Your task to perform on an android device: clear all cookies in the chrome app Image 0: 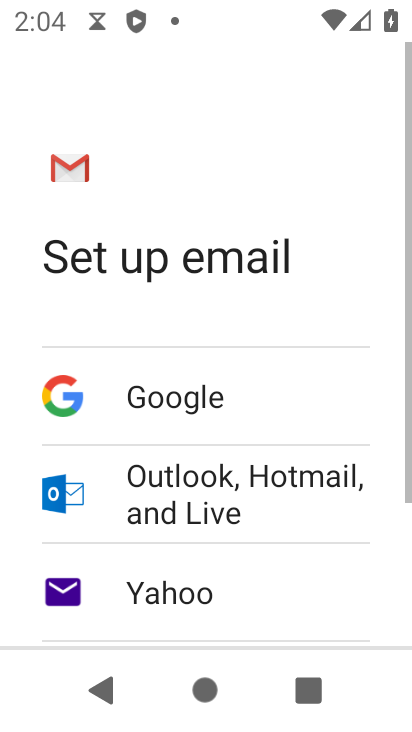
Step 0: press home button
Your task to perform on an android device: clear all cookies in the chrome app Image 1: 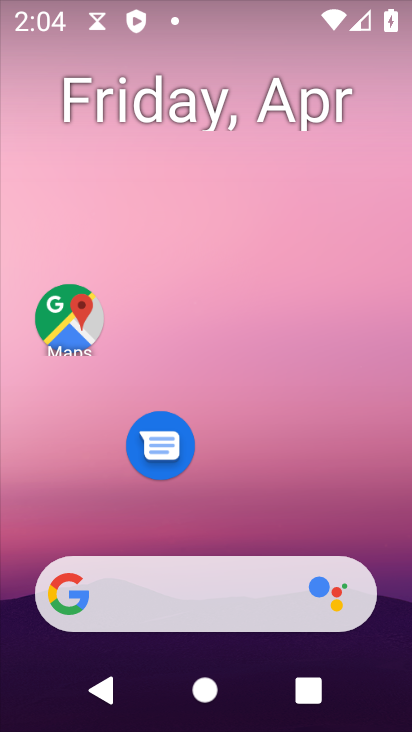
Step 1: drag from (277, 453) to (239, 66)
Your task to perform on an android device: clear all cookies in the chrome app Image 2: 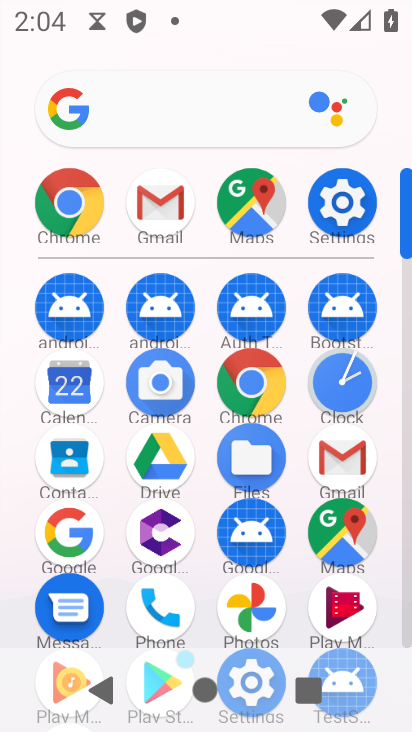
Step 2: click (247, 394)
Your task to perform on an android device: clear all cookies in the chrome app Image 3: 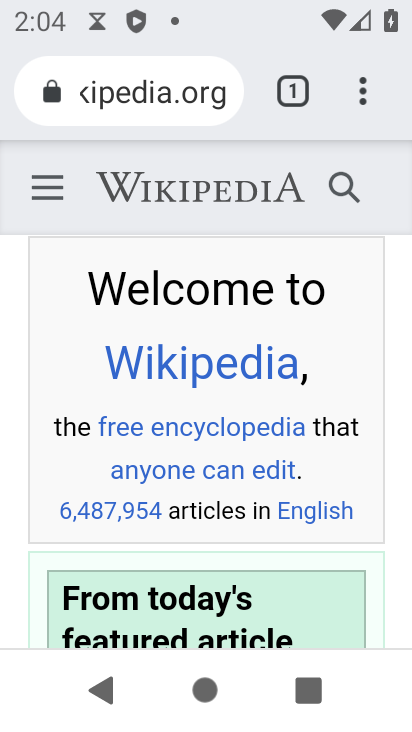
Step 3: click (356, 79)
Your task to perform on an android device: clear all cookies in the chrome app Image 4: 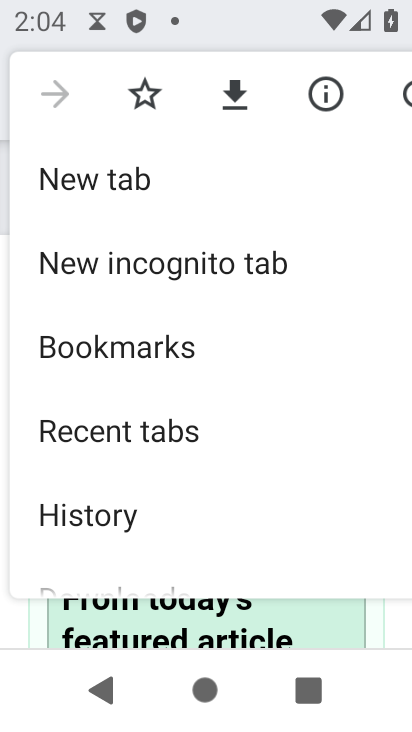
Step 4: drag from (171, 486) to (166, 297)
Your task to perform on an android device: clear all cookies in the chrome app Image 5: 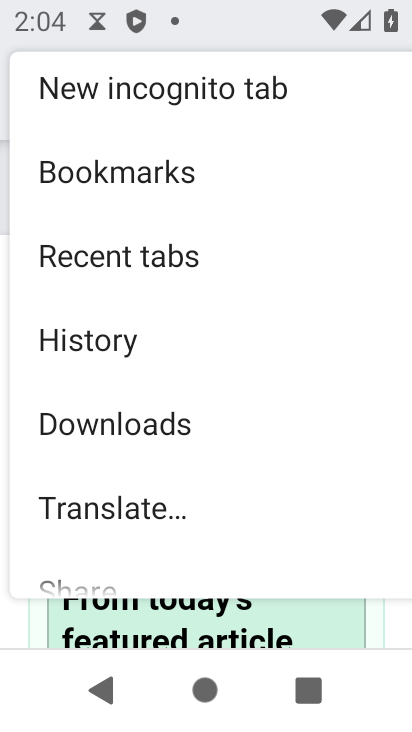
Step 5: click (166, 340)
Your task to perform on an android device: clear all cookies in the chrome app Image 6: 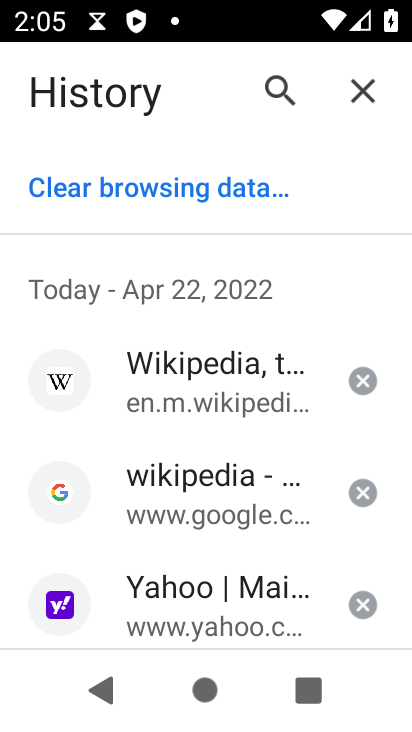
Step 6: click (116, 198)
Your task to perform on an android device: clear all cookies in the chrome app Image 7: 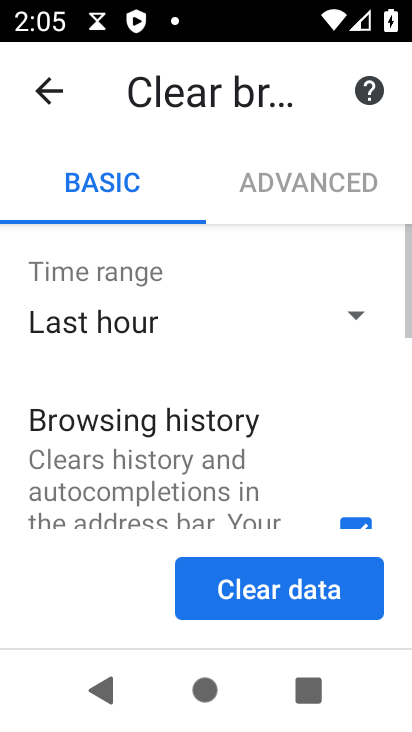
Step 7: drag from (237, 504) to (243, 205)
Your task to perform on an android device: clear all cookies in the chrome app Image 8: 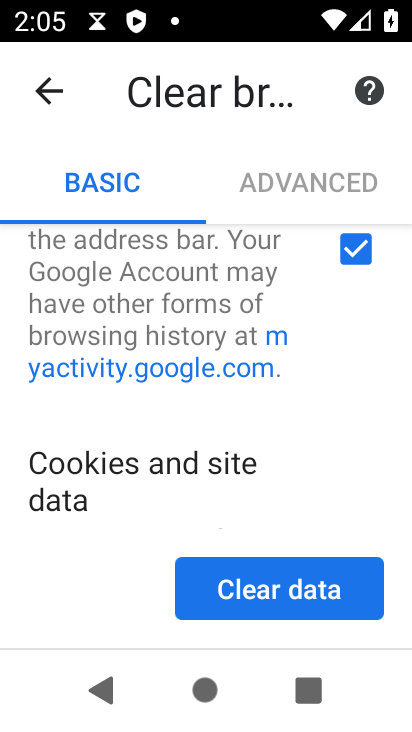
Step 8: drag from (281, 480) to (315, 504)
Your task to perform on an android device: clear all cookies in the chrome app Image 9: 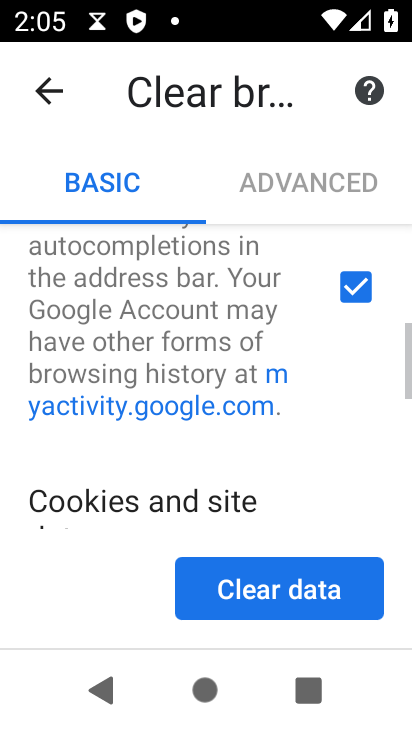
Step 9: click (328, 340)
Your task to perform on an android device: clear all cookies in the chrome app Image 10: 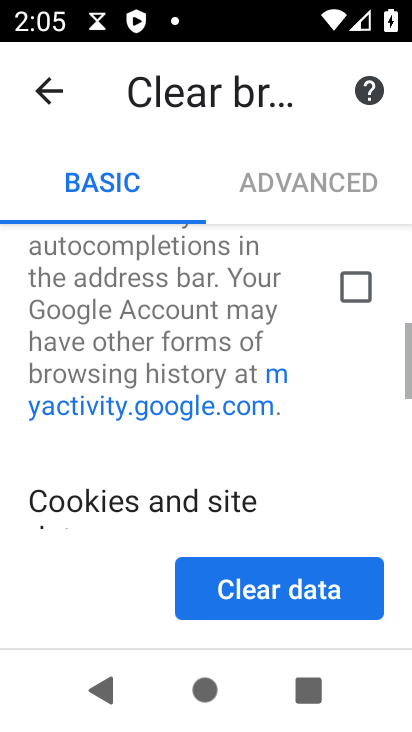
Step 10: drag from (238, 462) to (266, 268)
Your task to perform on an android device: clear all cookies in the chrome app Image 11: 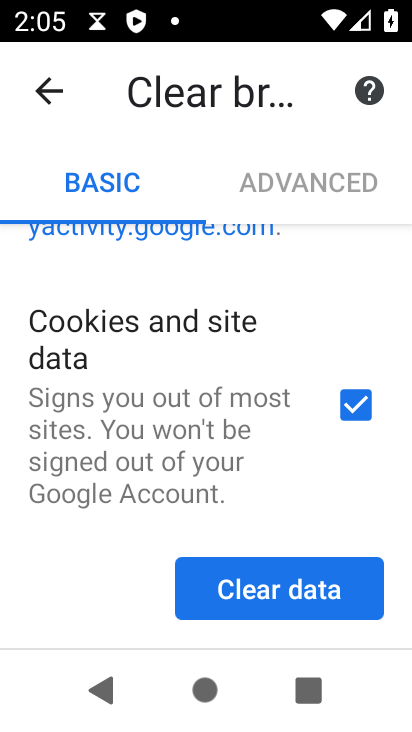
Step 11: drag from (277, 458) to (281, 247)
Your task to perform on an android device: clear all cookies in the chrome app Image 12: 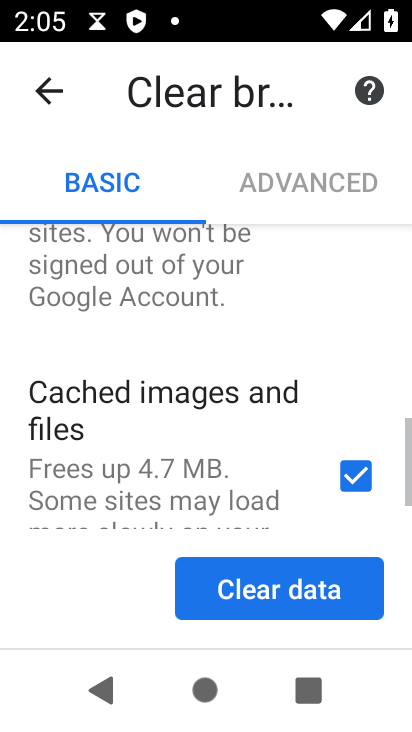
Step 12: click (274, 477)
Your task to perform on an android device: clear all cookies in the chrome app Image 13: 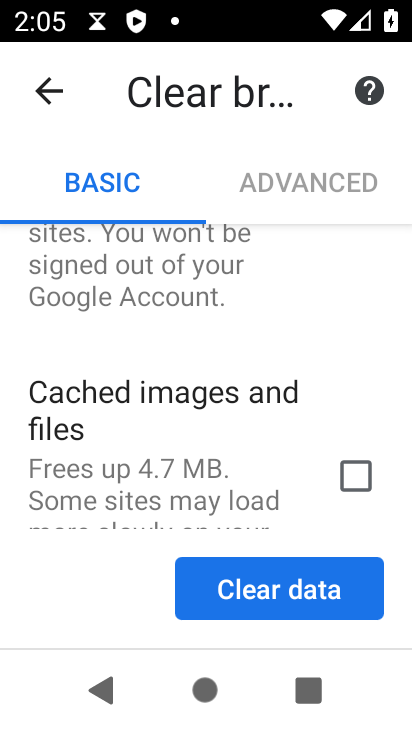
Step 13: click (259, 581)
Your task to perform on an android device: clear all cookies in the chrome app Image 14: 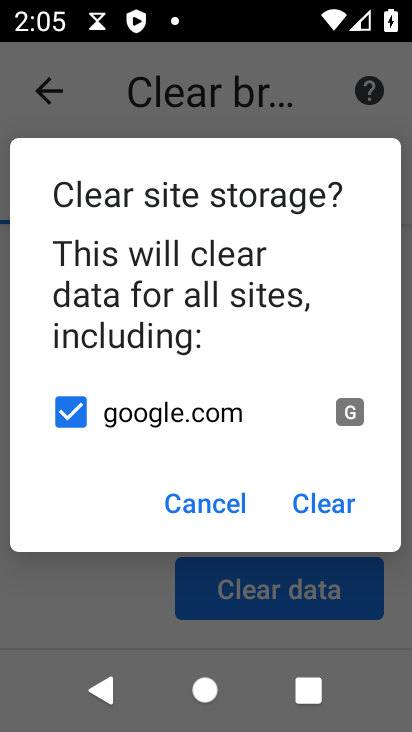
Step 14: click (349, 497)
Your task to perform on an android device: clear all cookies in the chrome app Image 15: 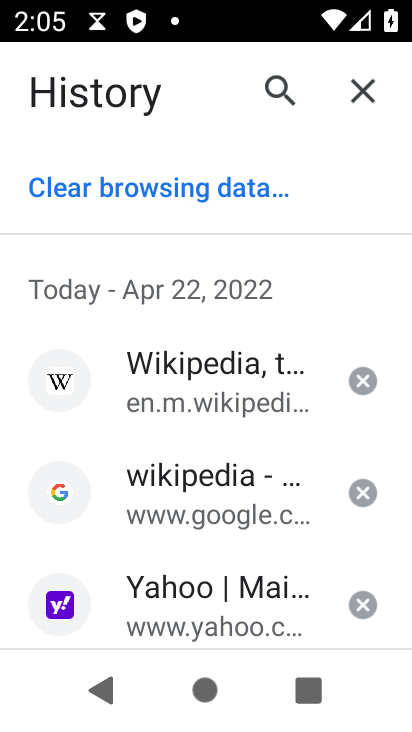
Step 15: task complete